Your task to perform on an android device: check out phone information Image 0: 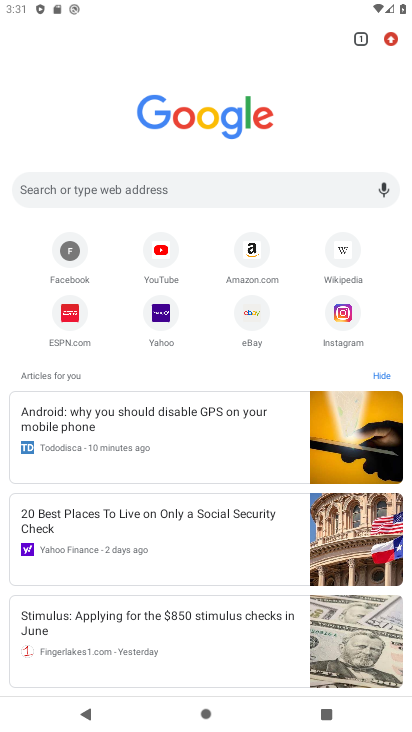
Step 0: press home button
Your task to perform on an android device: check out phone information Image 1: 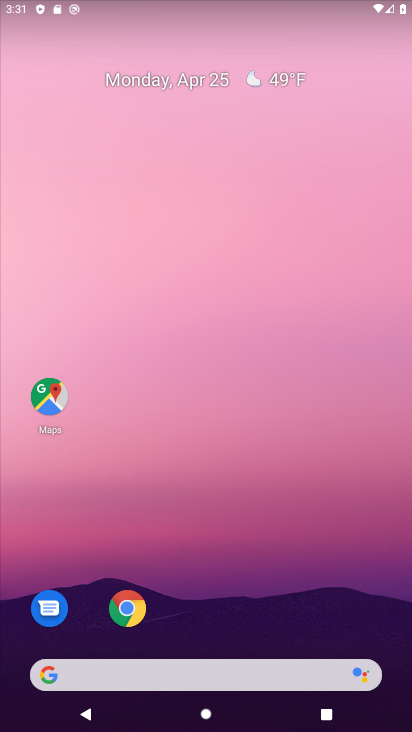
Step 1: drag from (252, 558) to (271, 84)
Your task to perform on an android device: check out phone information Image 2: 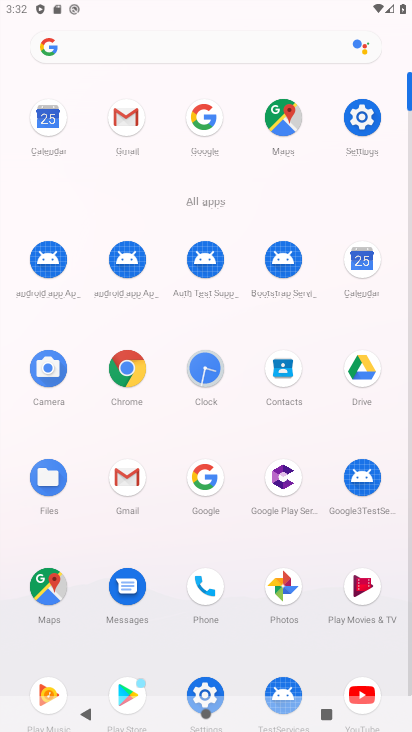
Step 2: click (358, 119)
Your task to perform on an android device: check out phone information Image 3: 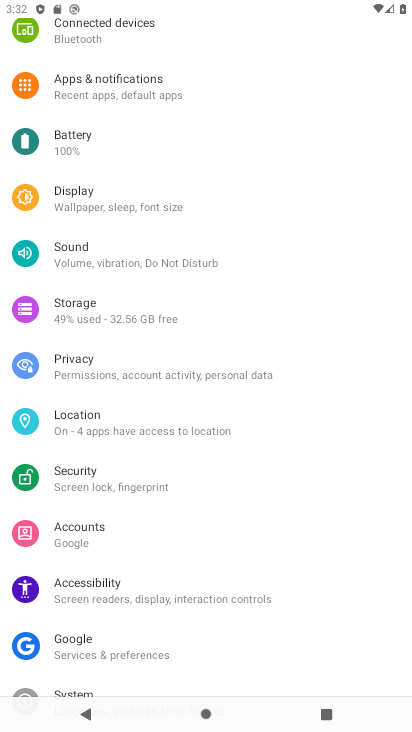
Step 3: task complete